Your task to perform on an android device: Go to display settings Image 0: 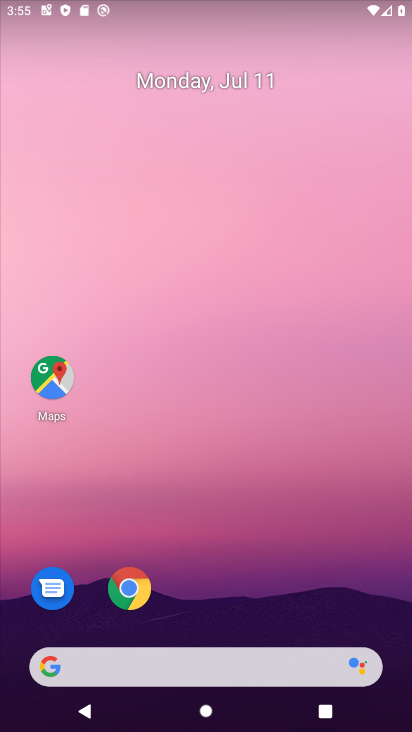
Step 0: drag from (353, 624) to (364, 262)
Your task to perform on an android device: Go to display settings Image 1: 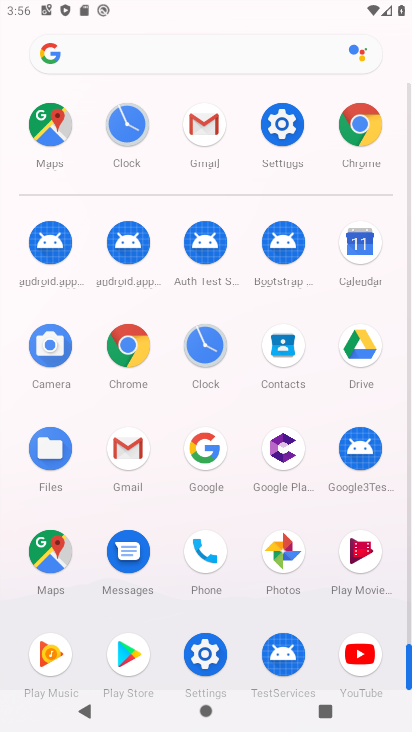
Step 1: click (289, 130)
Your task to perform on an android device: Go to display settings Image 2: 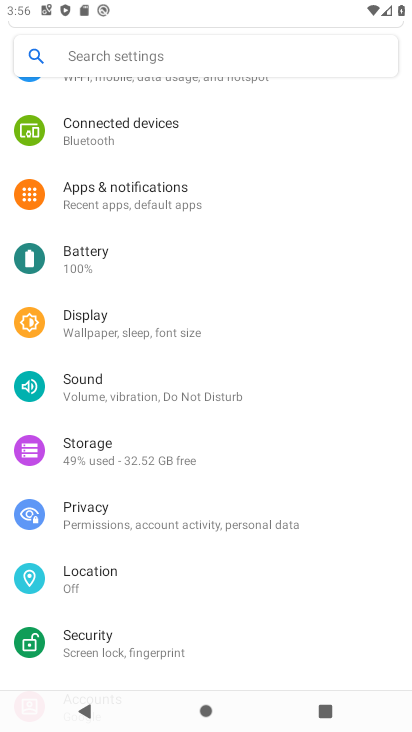
Step 2: drag from (358, 239) to (347, 350)
Your task to perform on an android device: Go to display settings Image 3: 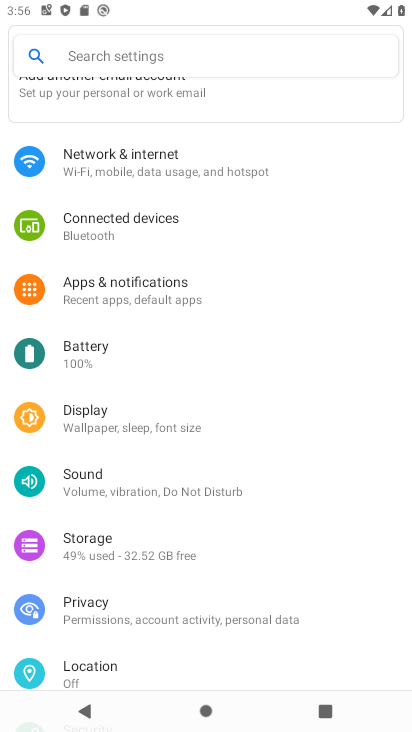
Step 3: drag from (347, 187) to (334, 364)
Your task to perform on an android device: Go to display settings Image 4: 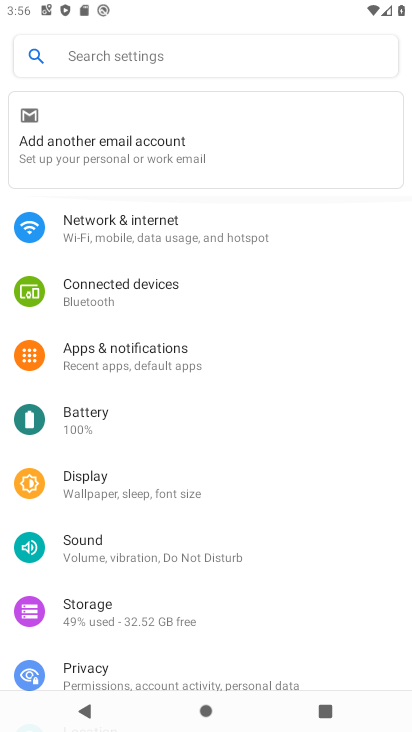
Step 4: drag from (353, 450) to (343, 348)
Your task to perform on an android device: Go to display settings Image 5: 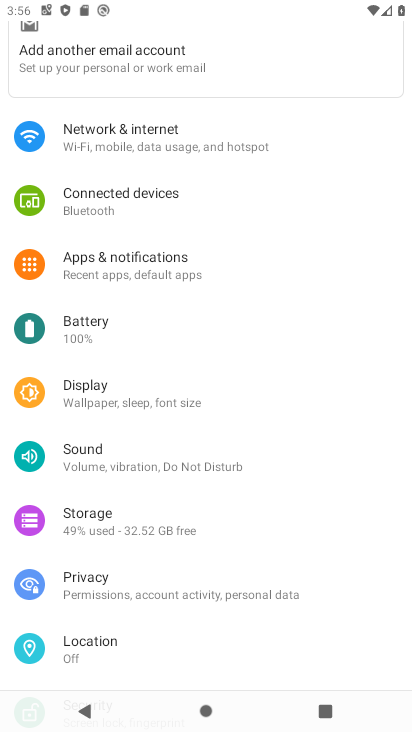
Step 5: drag from (341, 442) to (335, 354)
Your task to perform on an android device: Go to display settings Image 6: 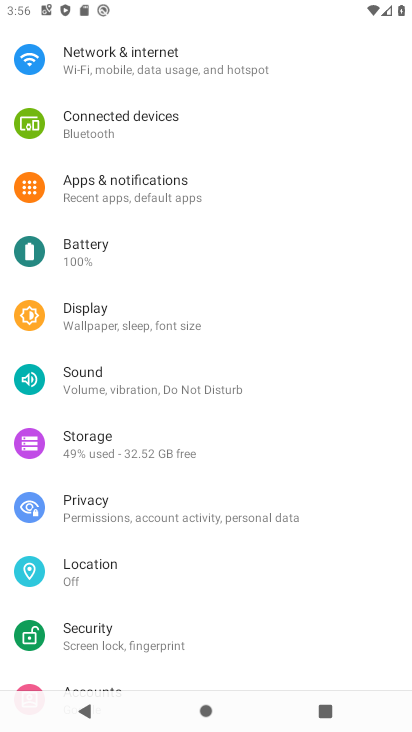
Step 6: drag from (335, 469) to (344, 347)
Your task to perform on an android device: Go to display settings Image 7: 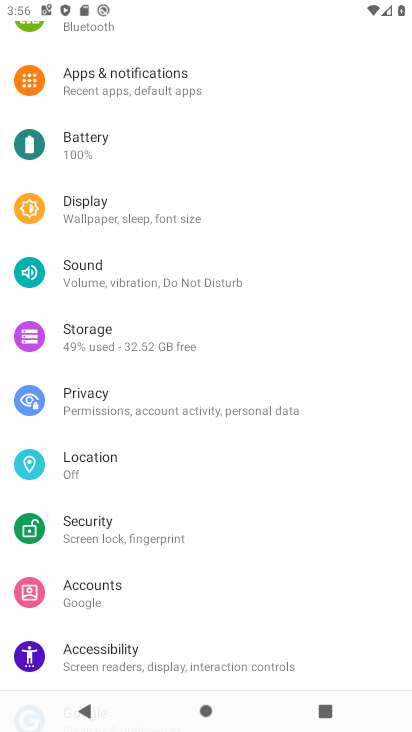
Step 7: drag from (350, 475) to (350, 349)
Your task to perform on an android device: Go to display settings Image 8: 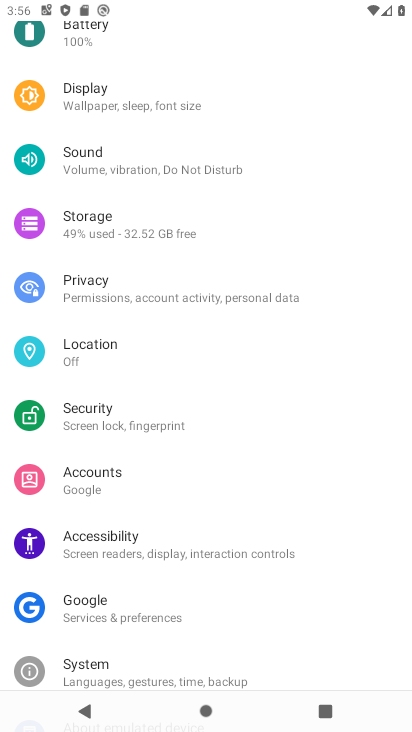
Step 8: drag from (350, 489) to (352, 387)
Your task to perform on an android device: Go to display settings Image 9: 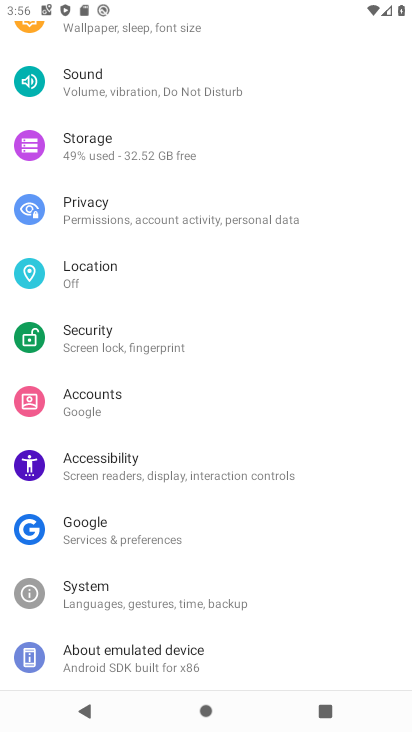
Step 9: drag from (347, 527) to (357, 402)
Your task to perform on an android device: Go to display settings Image 10: 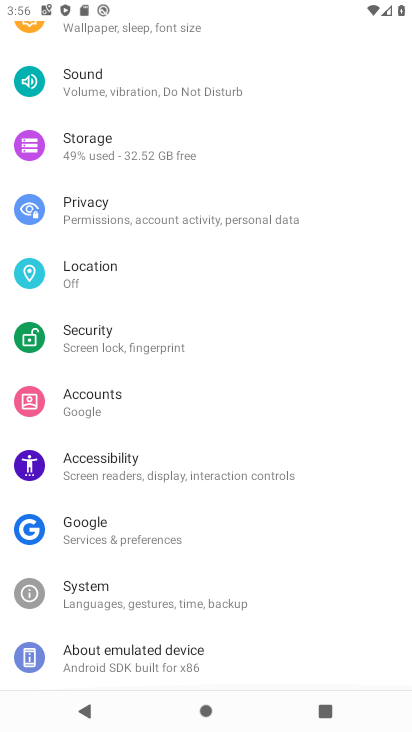
Step 10: drag from (350, 353) to (339, 471)
Your task to perform on an android device: Go to display settings Image 11: 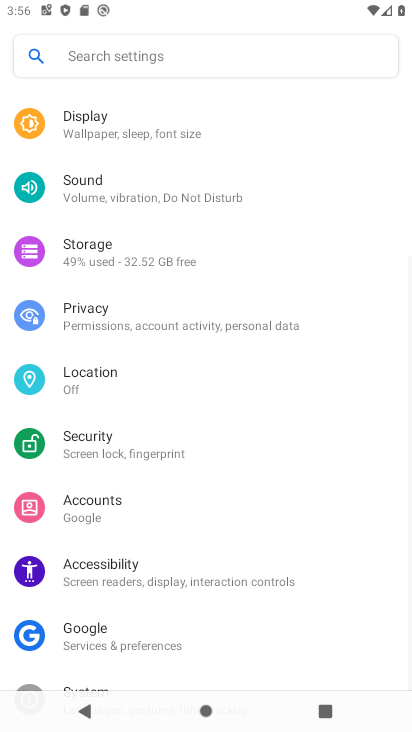
Step 11: drag from (343, 319) to (345, 449)
Your task to perform on an android device: Go to display settings Image 12: 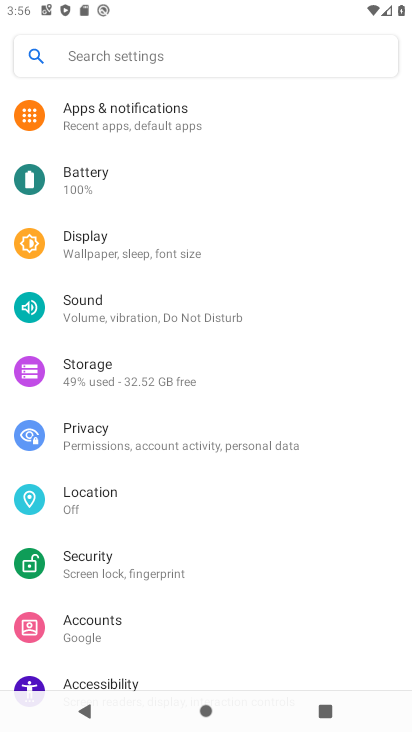
Step 12: drag from (346, 273) to (350, 534)
Your task to perform on an android device: Go to display settings Image 13: 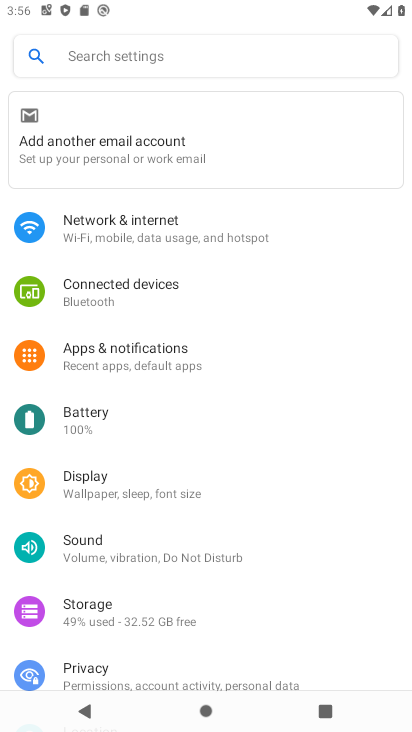
Step 13: click (207, 488)
Your task to perform on an android device: Go to display settings Image 14: 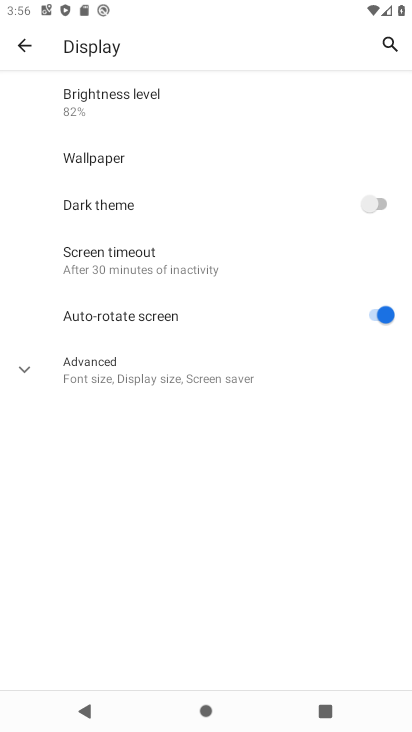
Step 14: click (253, 372)
Your task to perform on an android device: Go to display settings Image 15: 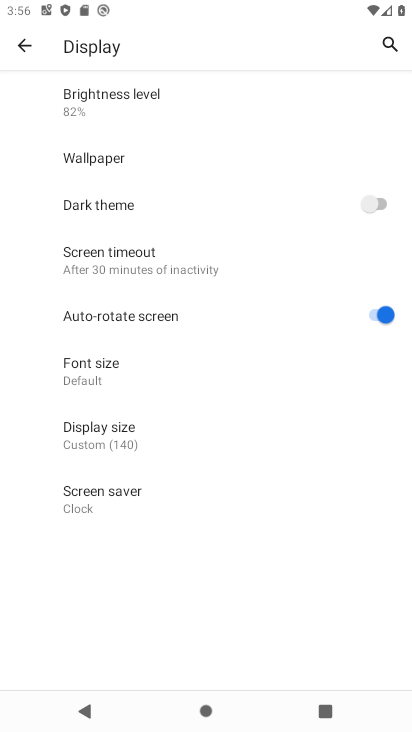
Step 15: task complete